Your task to perform on an android device: change text size in settings app Image 0: 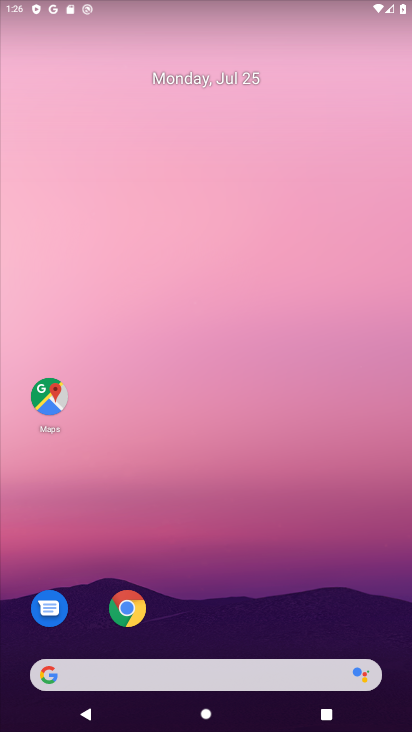
Step 0: drag from (185, 677) to (319, 6)
Your task to perform on an android device: change text size in settings app Image 1: 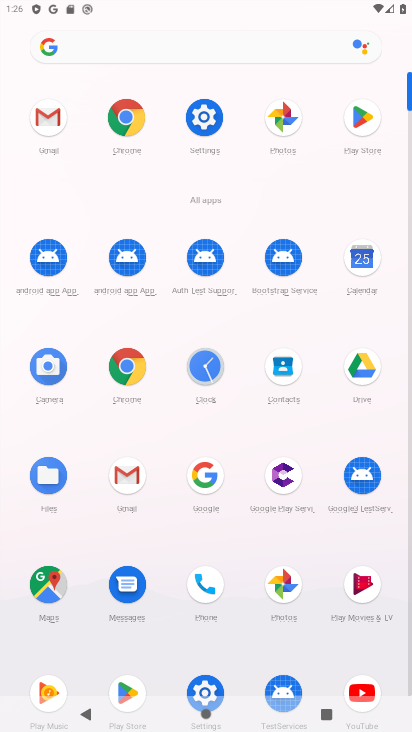
Step 1: click (205, 116)
Your task to perform on an android device: change text size in settings app Image 2: 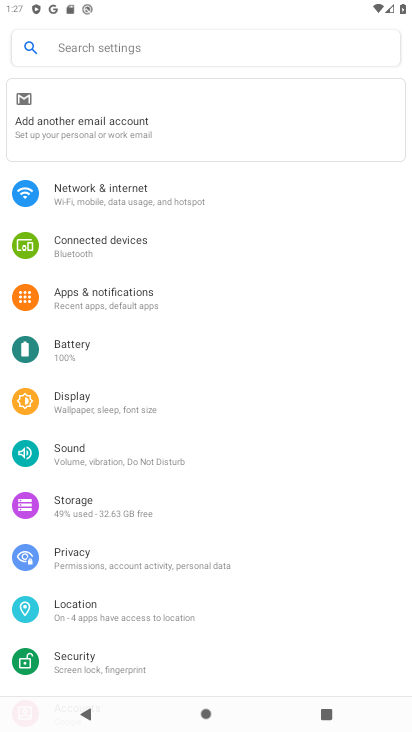
Step 2: drag from (102, 539) to (179, 446)
Your task to perform on an android device: change text size in settings app Image 3: 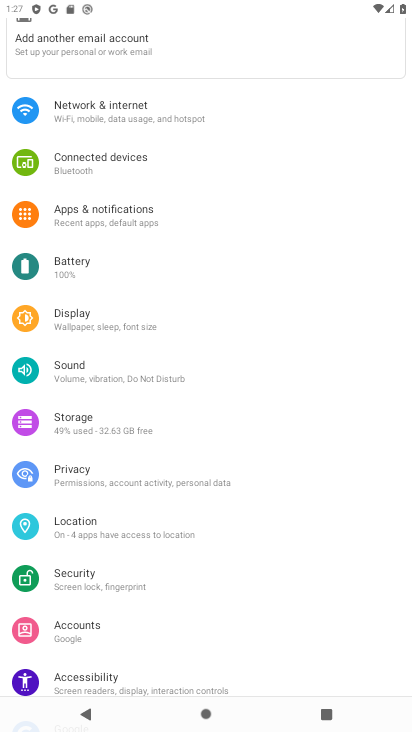
Step 3: drag from (142, 606) to (198, 538)
Your task to perform on an android device: change text size in settings app Image 4: 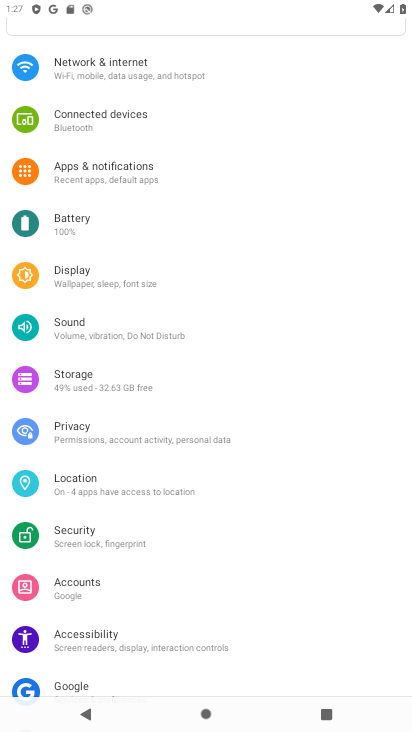
Step 4: click (110, 640)
Your task to perform on an android device: change text size in settings app Image 5: 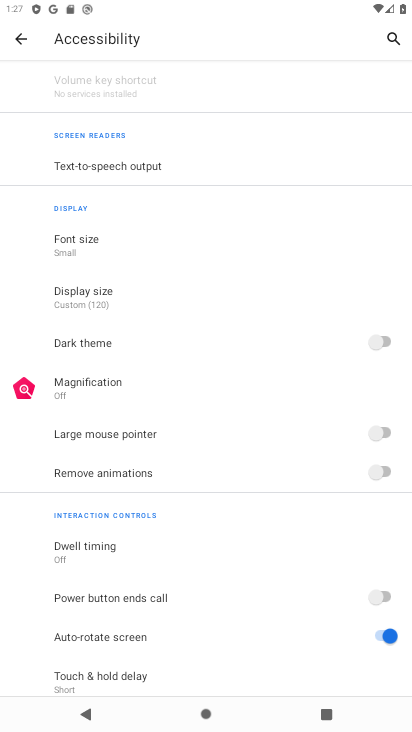
Step 5: click (115, 248)
Your task to perform on an android device: change text size in settings app Image 6: 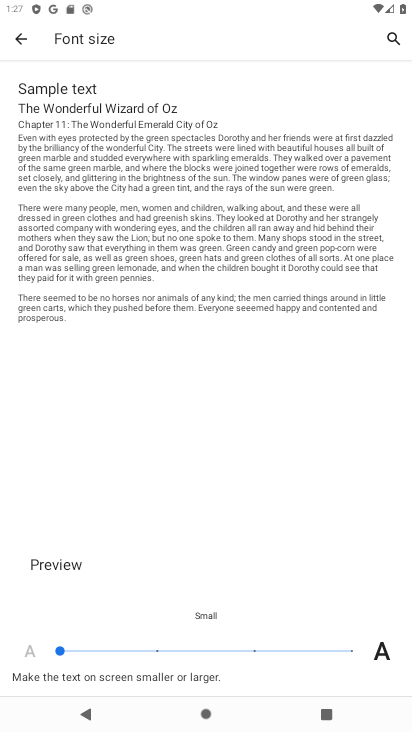
Step 6: click (254, 647)
Your task to perform on an android device: change text size in settings app Image 7: 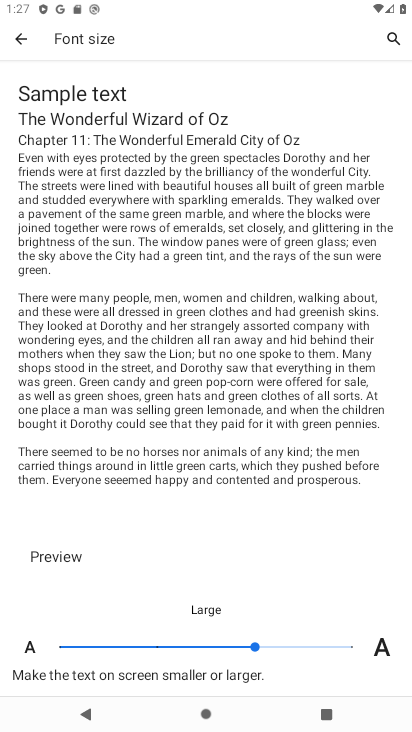
Step 7: task complete